Your task to perform on an android device: install app "Facebook Messenger" Image 0: 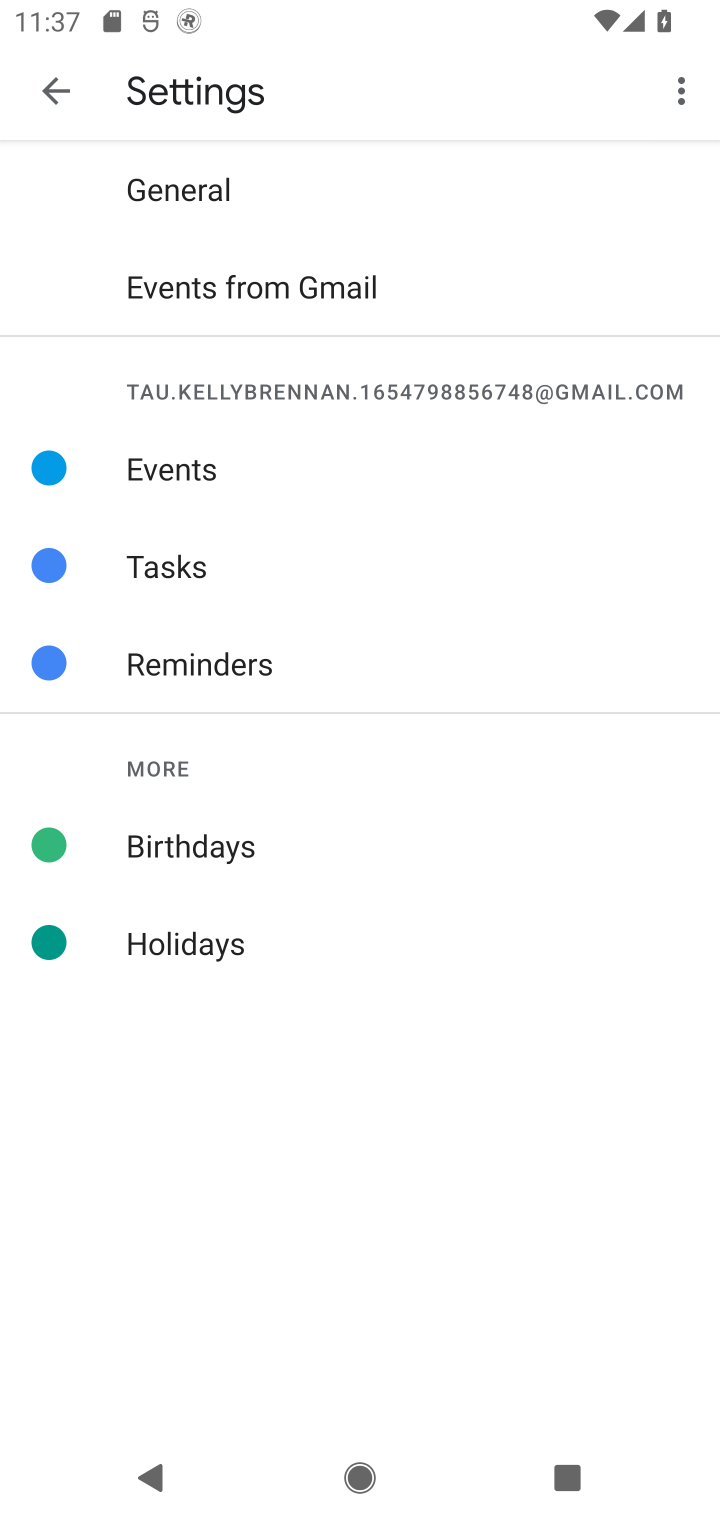
Step 0: press home button
Your task to perform on an android device: install app "Facebook Messenger" Image 1: 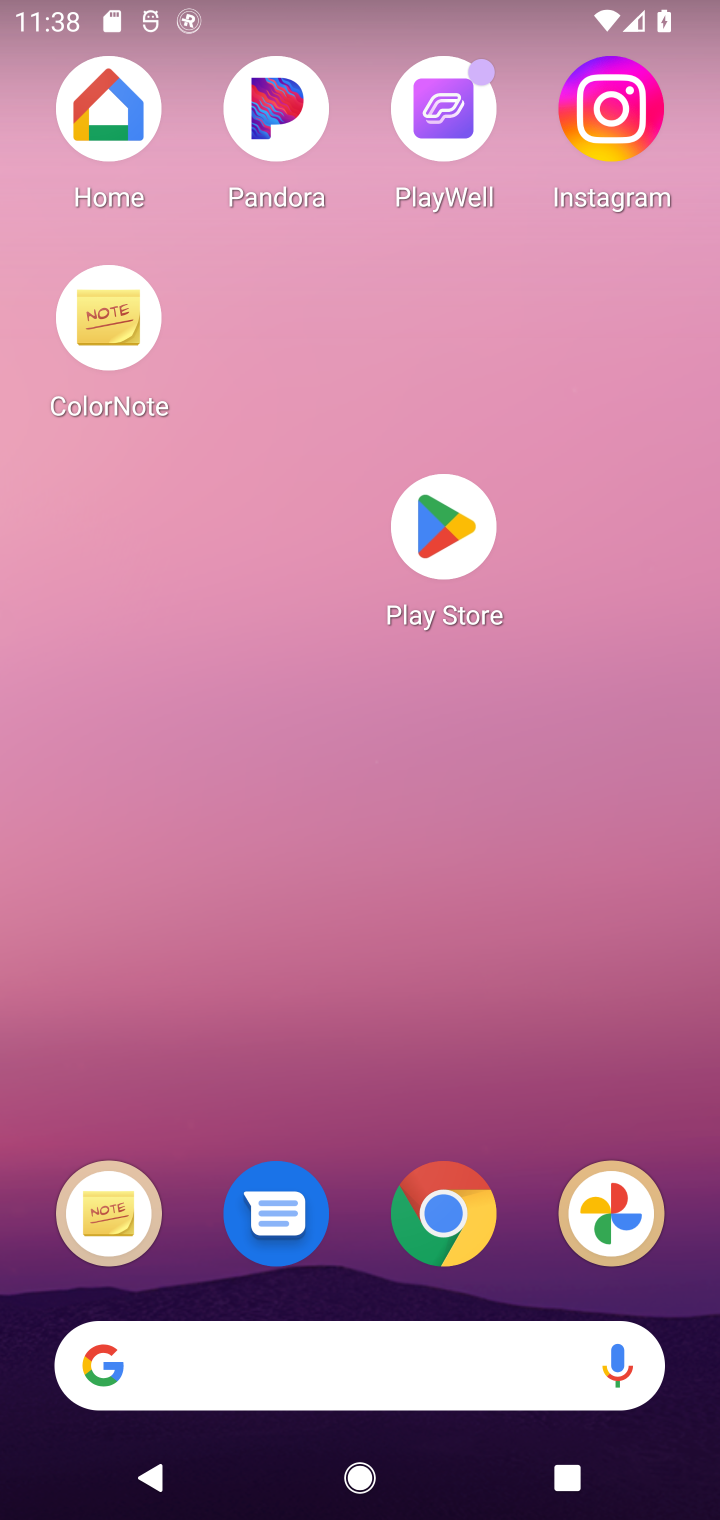
Step 1: click (462, 517)
Your task to perform on an android device: install app "Facebook Messenger" Image 2: 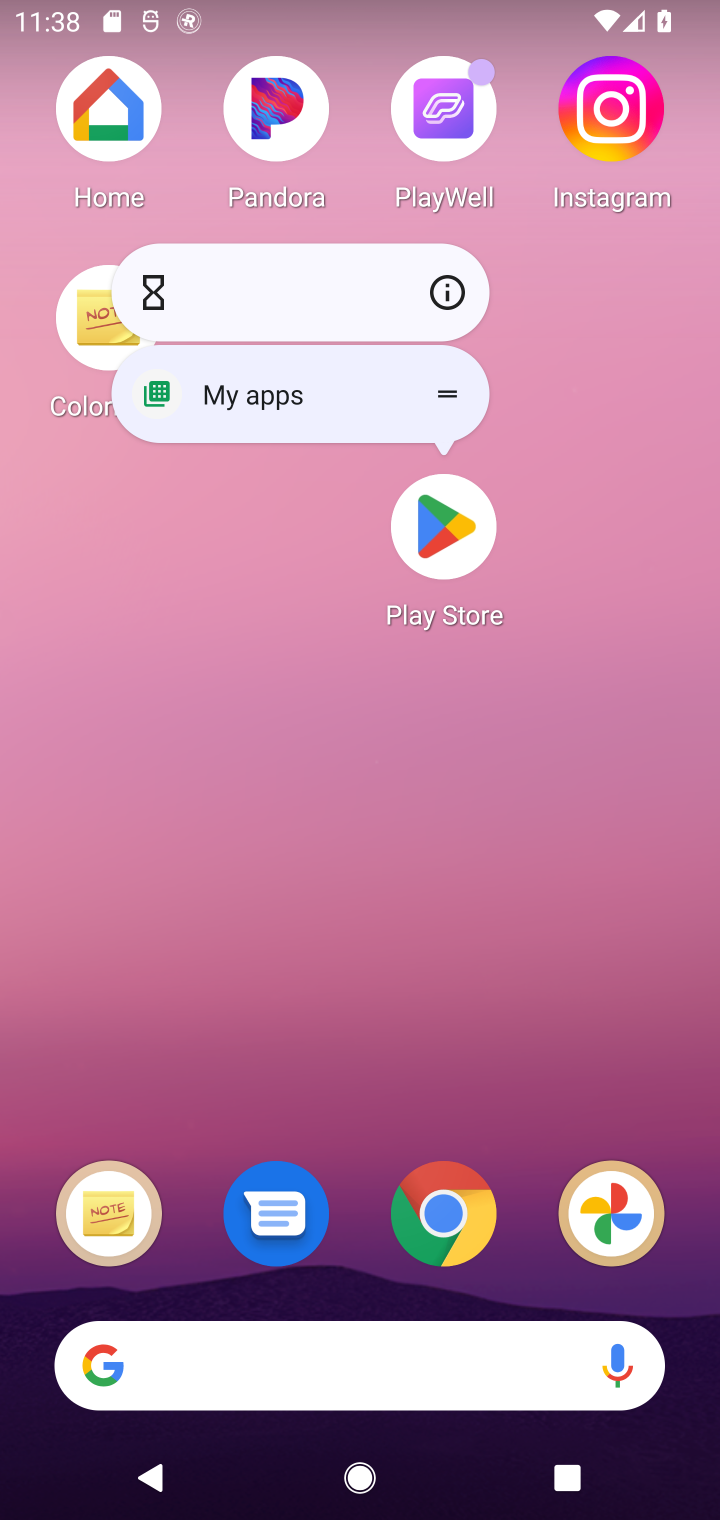
Step 2: click (462, 517)
Your task to perform on an android device: install app "Facebook Messenger" Image 3: 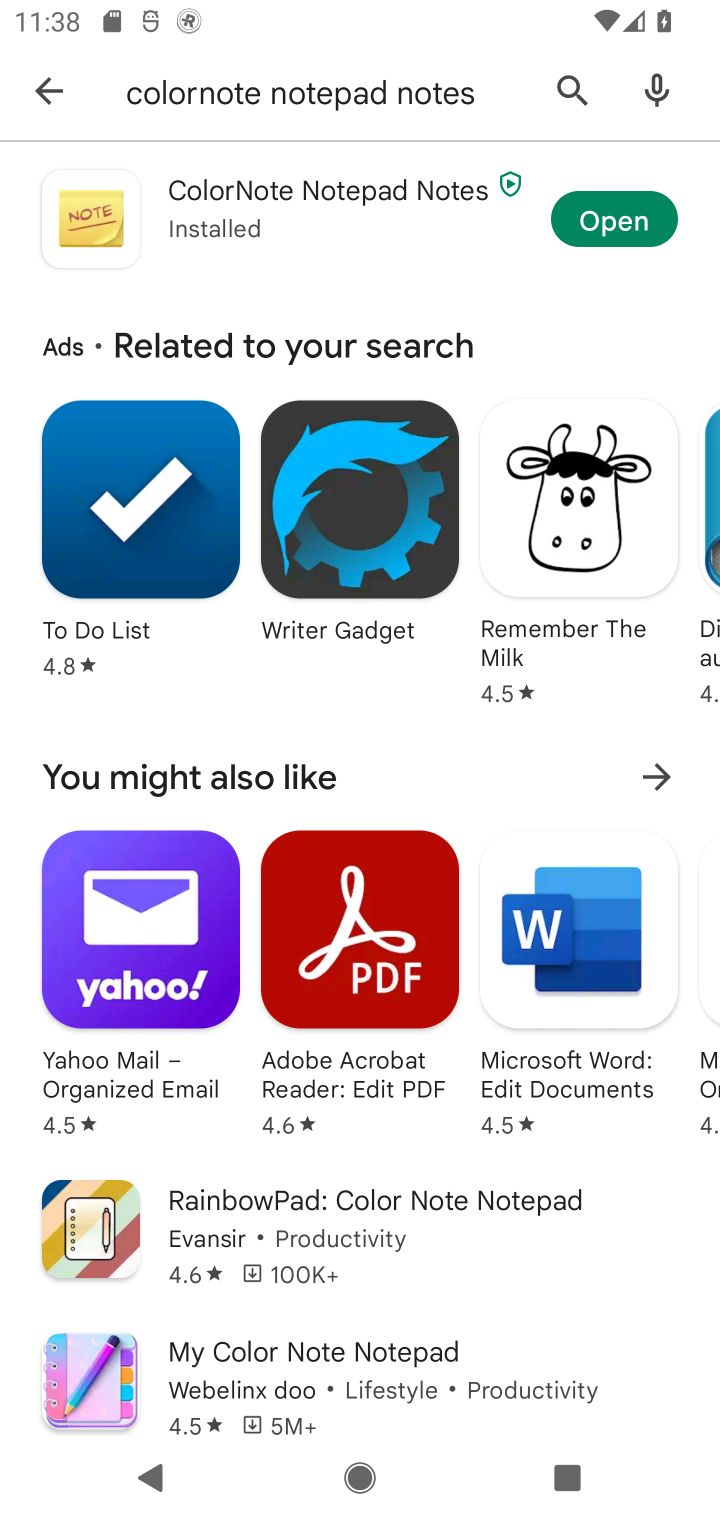
Step 3: click (557, 89)
Your task to perform on an android device: install app "Facebook Messenger" Image 4: 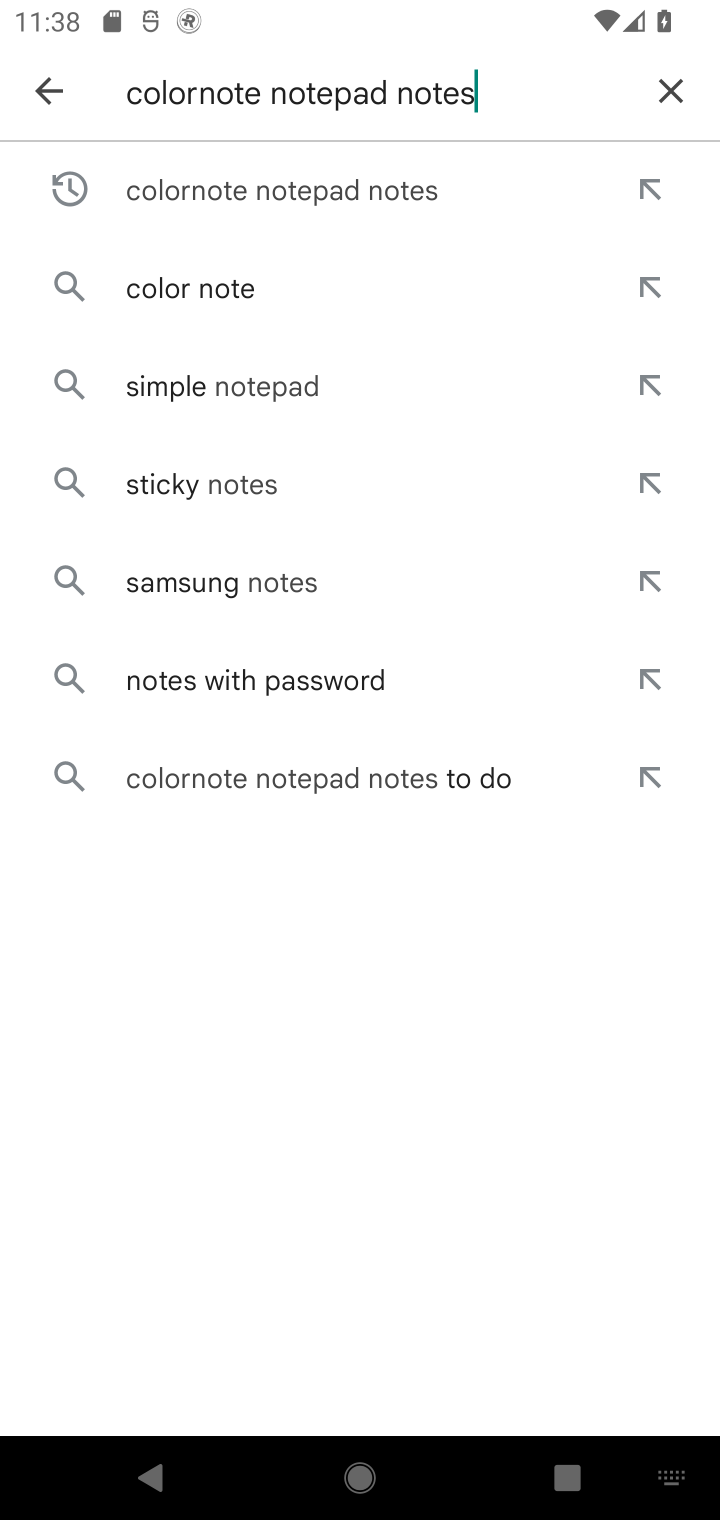
Step 4: click (682, 82)
Your task to perform on an android device: install app "Facebook Messenger" Image 5: 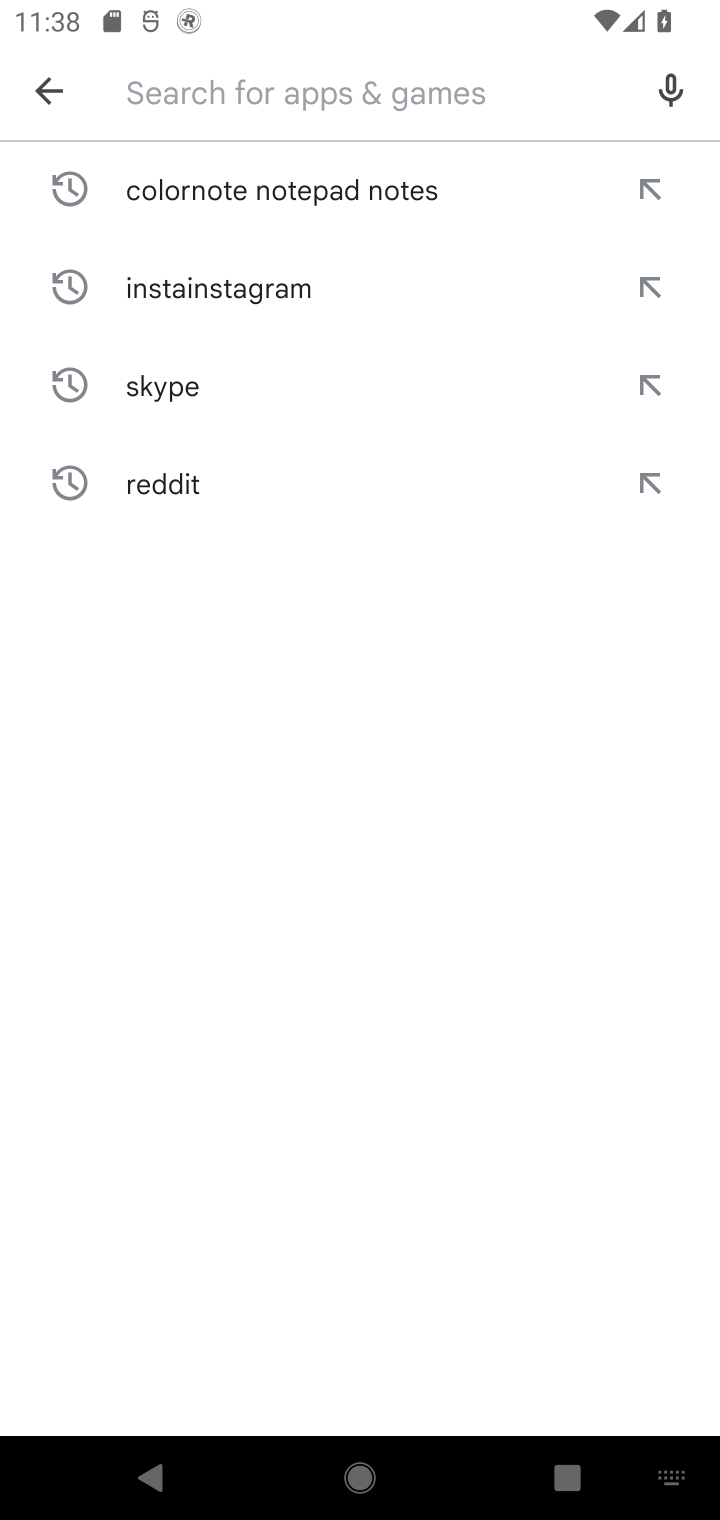
Step 5: type "face messenger"
Your task to perform on an android device: install app "Facebook Messenger" Image 6: 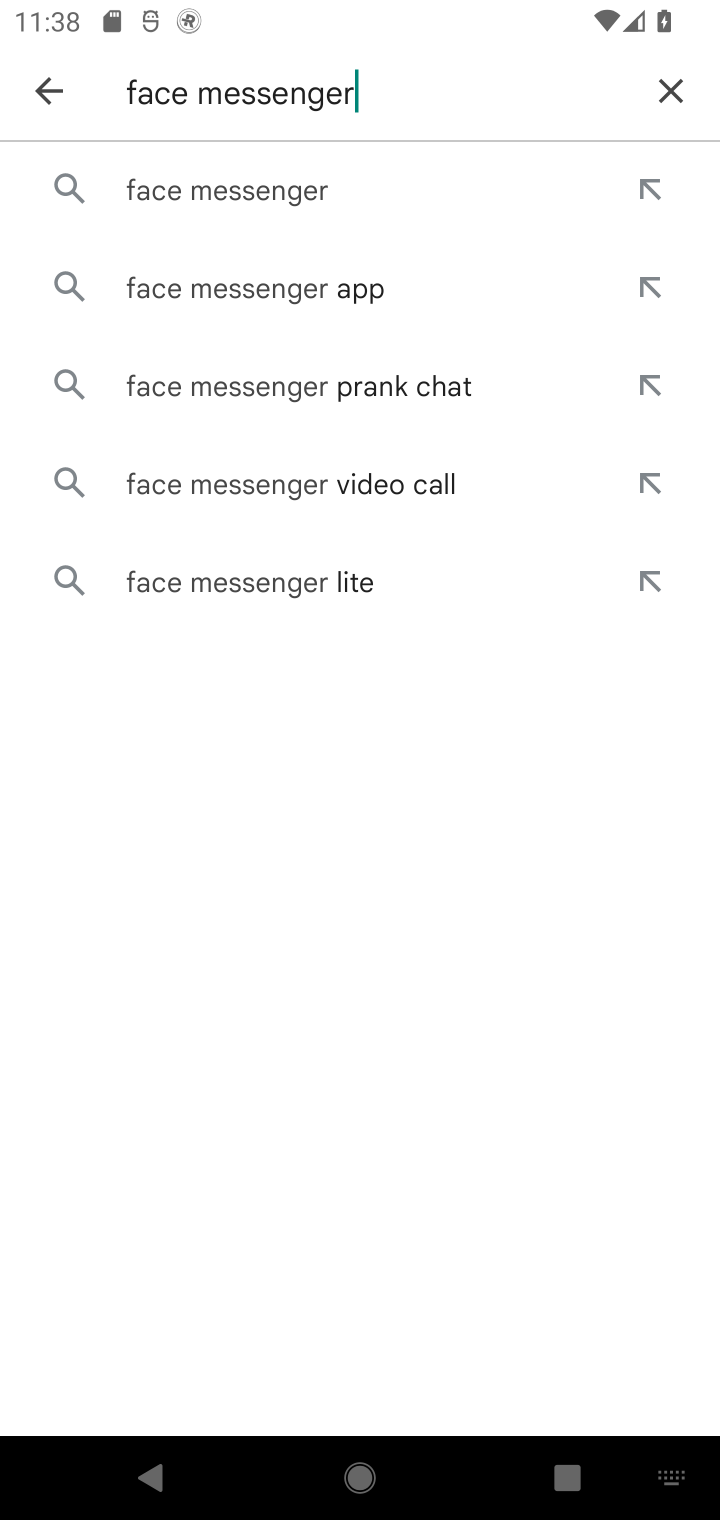
Step 6: click (299, 191)
Your task to perform on an android device: install app "Facebook Messenger" Image 7: 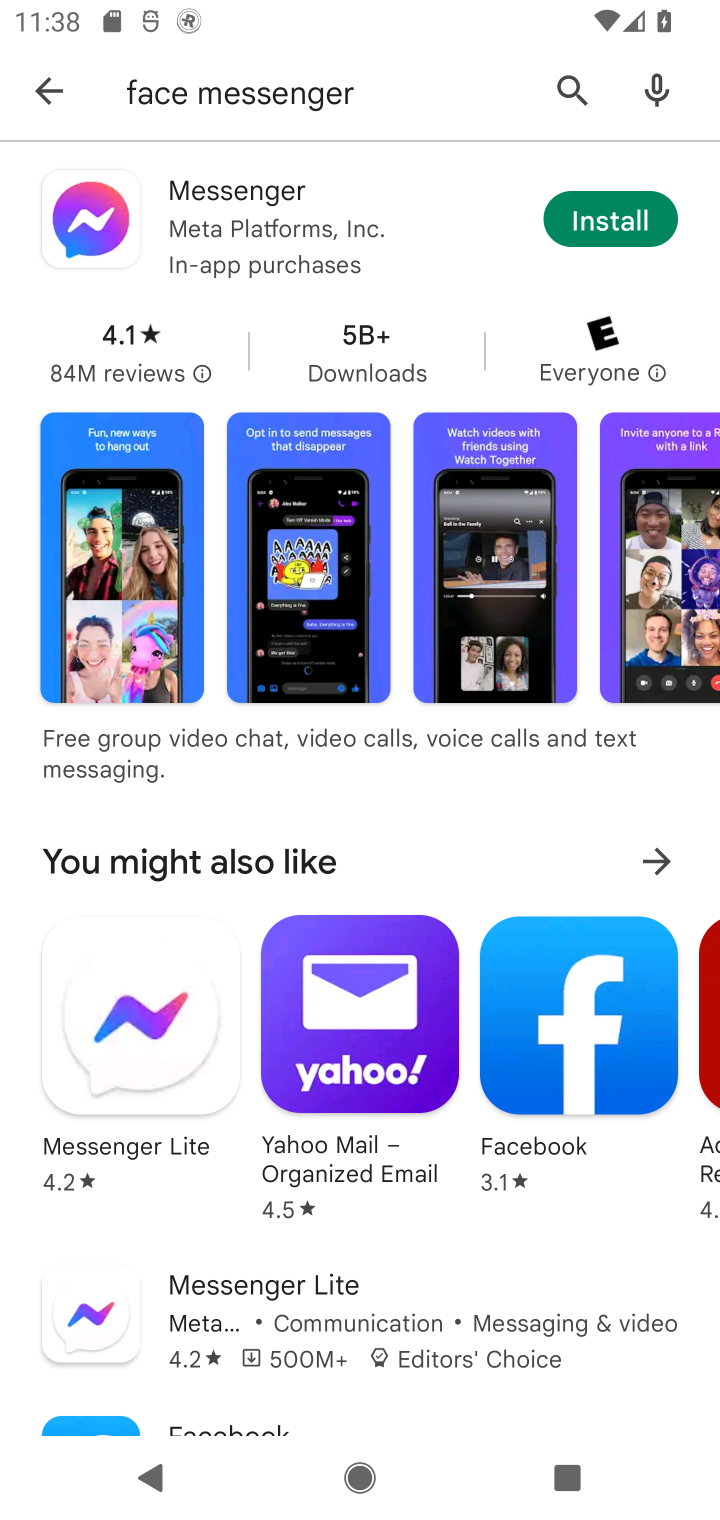
Step 7: click (577, 207)
Your task to perform on an android device: install app "Facebook Messenger" Image 8: 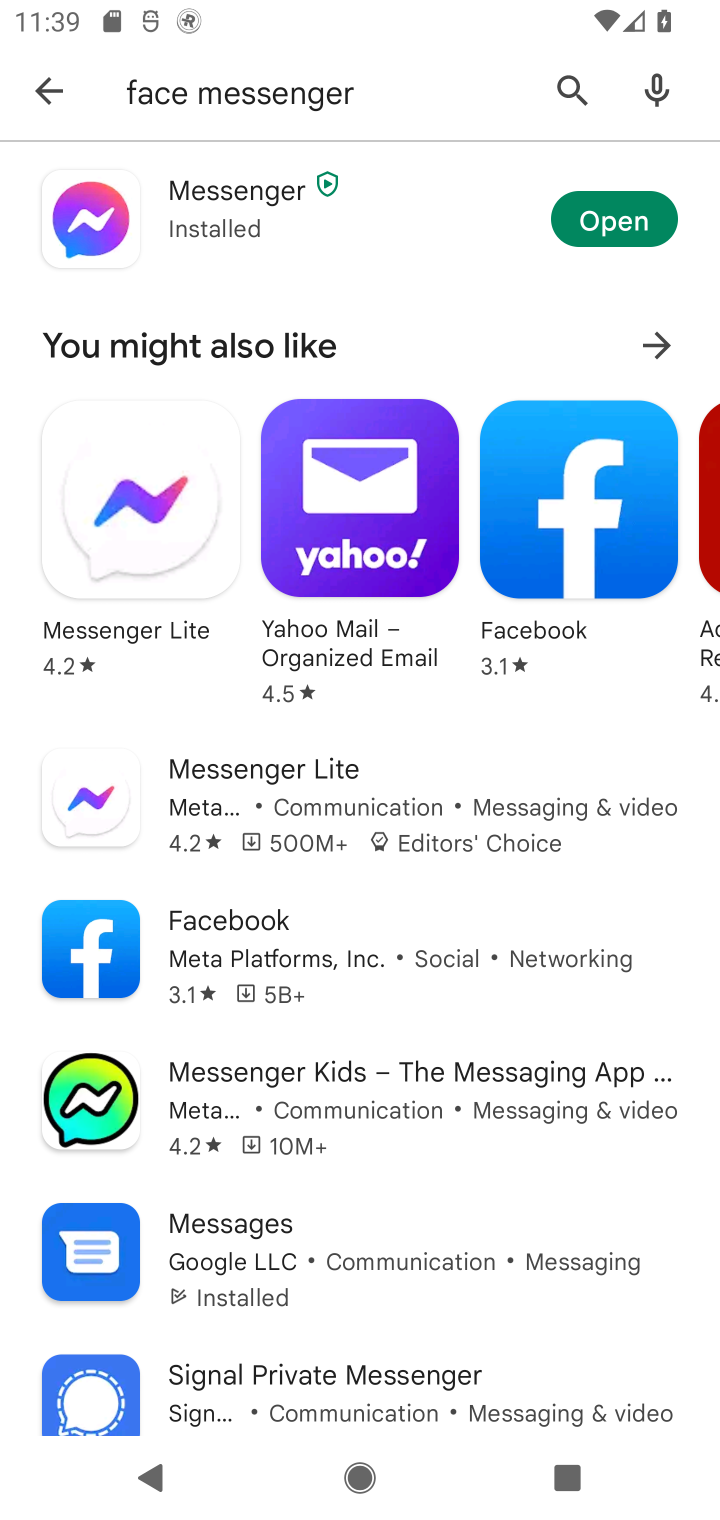
Step 8: task complete